Your task to perform on an android device: Open the Play Movies app and select the watchlist tab. Image 0: 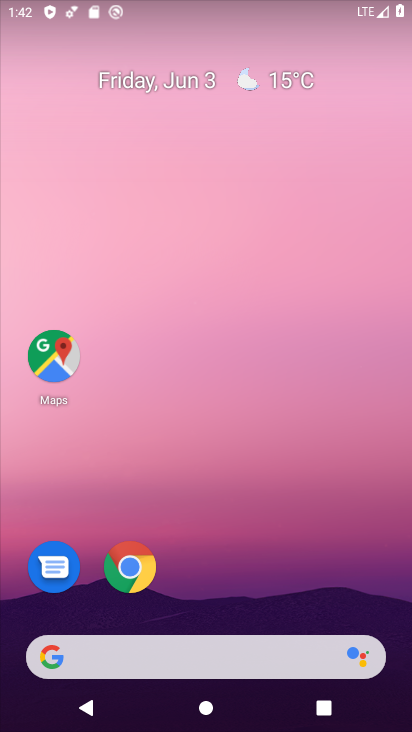
Step 0: drag from (177, 633) to (231, 124)
Your task to perform on an android device: Open the Play Movies app and select the watchlist tab. Image 1: 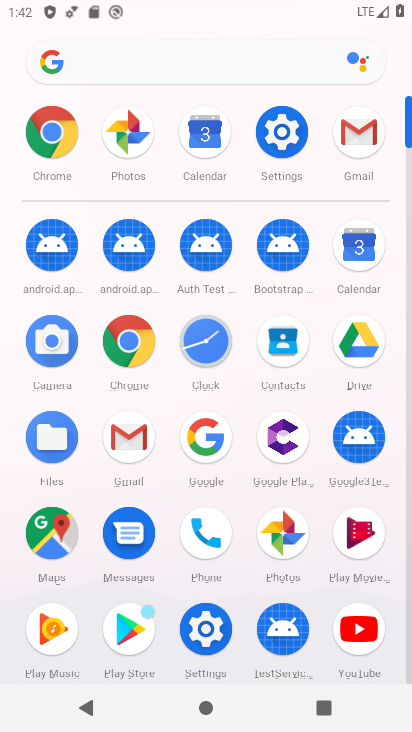
Step 1: click (363, 526)
Your task to perform on an android device: Open the Play Movies app and select the watchlist tab. Image 2: 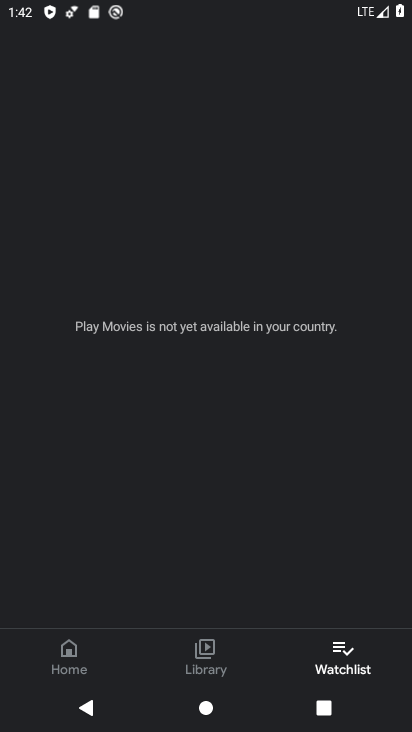
Step 2: task complete